Your task to perform on an android device: Open the calendar and show me this week's events? Image 0: 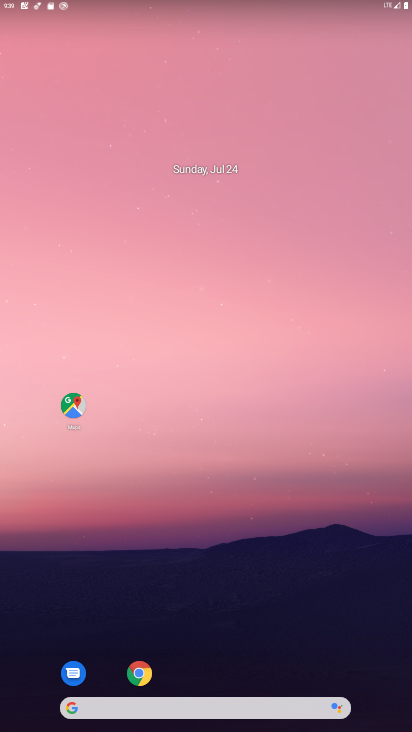
Step 0: drag from (201, 635) to (280, 35)
Your task to perform on an android device: Open the calendar and show me this week's events? Image 1: 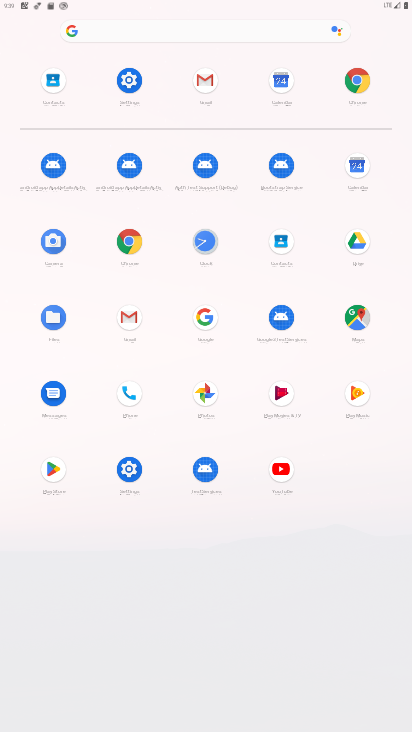
Step 1: click (352, 172)
Your task to perform on an android device: Open the calendar and show me this week's events? Image 2: 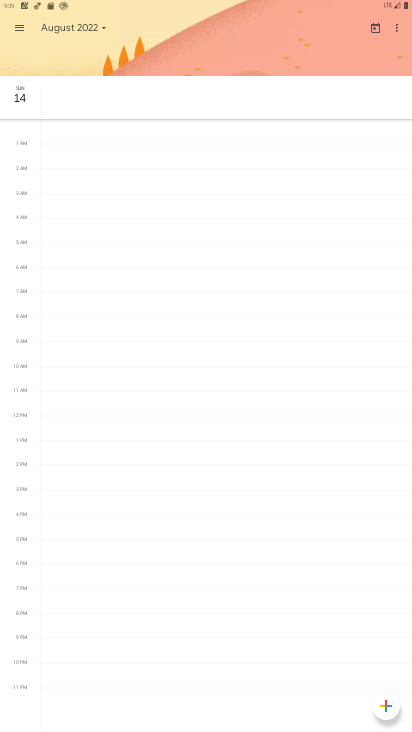
Step 2: click (20, 28)
Your task to perform on an android device: Open the calendar and show me this week's events? Image 3: 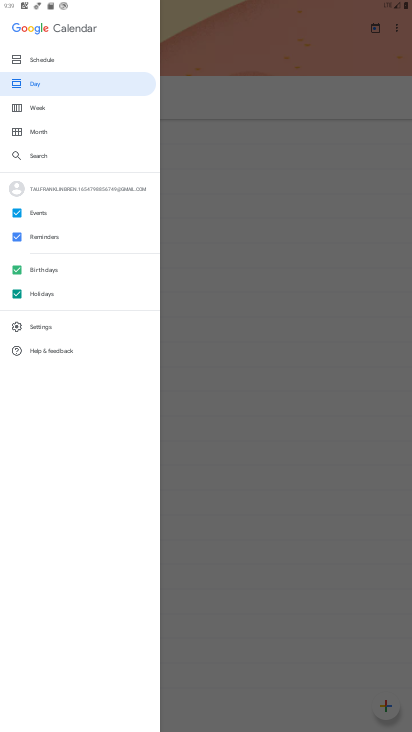
Step 3: click (46, 230)
Your task to perform on an android device: Open the calendar and show me this week's events? Image 4: 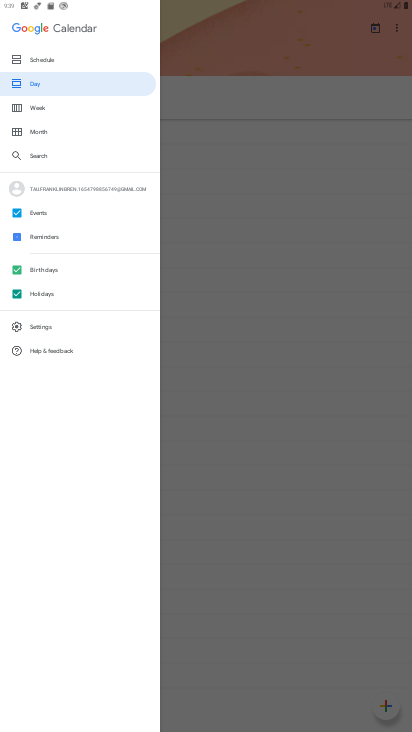
Step 4: click (39, 267)
Your task to perform on an android device: Open the calendar and show me this week's events? Image 5: 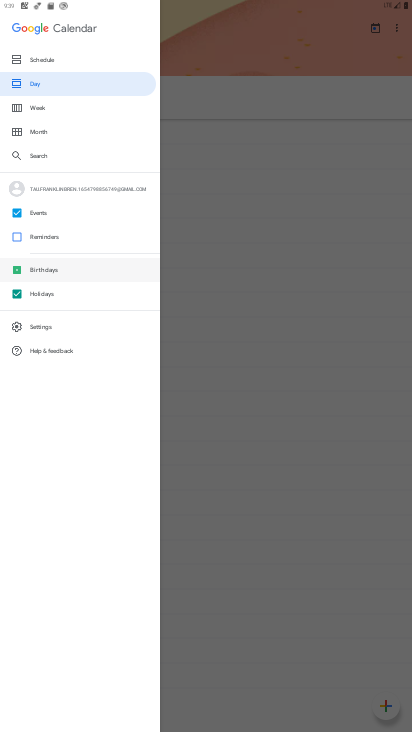
Step 5: click (45, 294)
Your task to perform on an android device: Open the calendar and show me this week's events? Image 6: 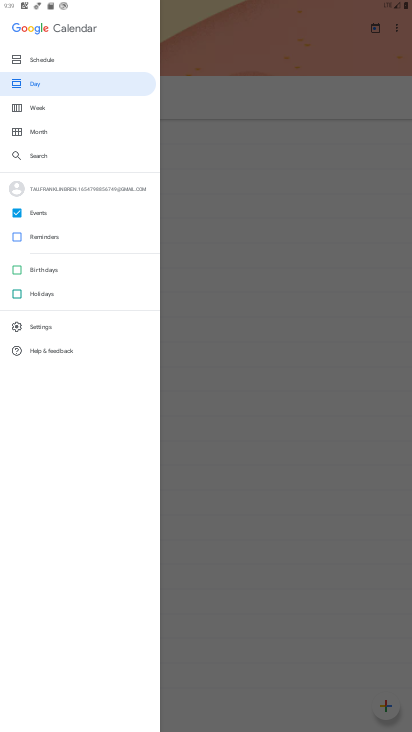
Step 6: click (52, 114)
Your task to perform on an android device: Open the calendar and show me this week's events? Image 7: 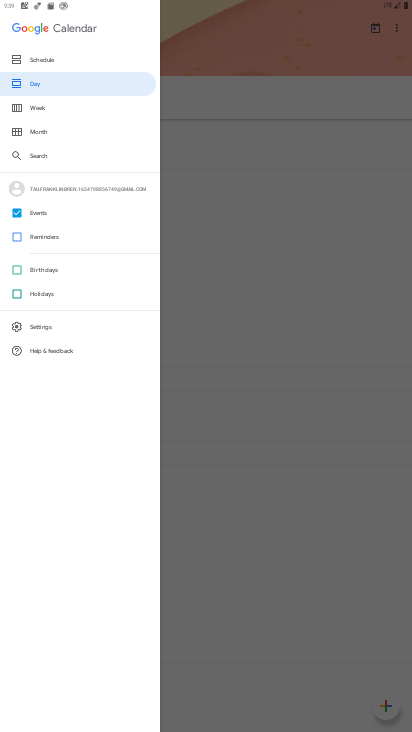
Step 7: click (28, 108)
Your task to perform on an android device: Open the calendar and show me this week's events? Image 8: 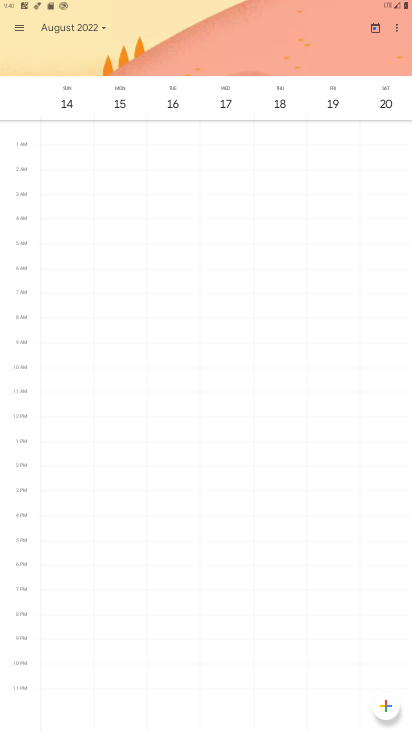
Step 8: task complete